Your task to perform on an android device: open a bookmark in the chrome app Image 0: 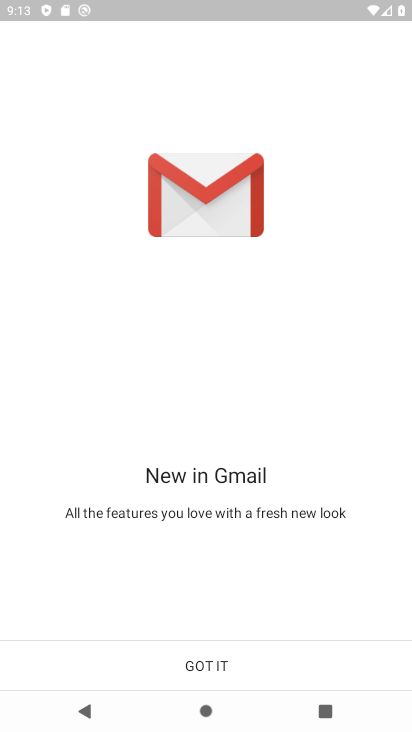
Step 0: press home button
Your task to perform on an android device: open a bookmark in the chrome app Image 1: 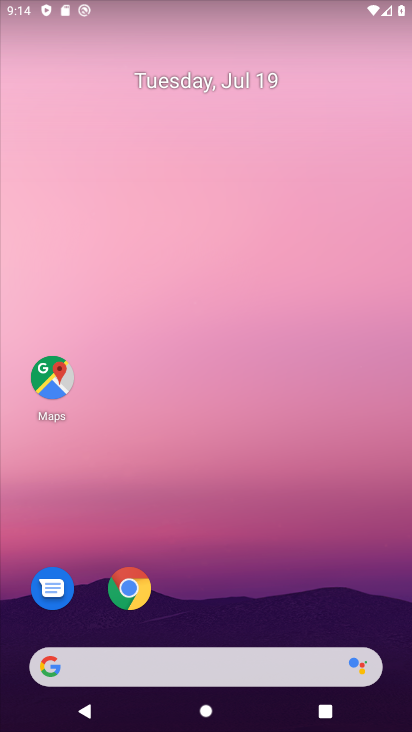
Step 1: click (125, 588)
Your task to perform on an android device: open a bookmark in the chrome app Image 2: 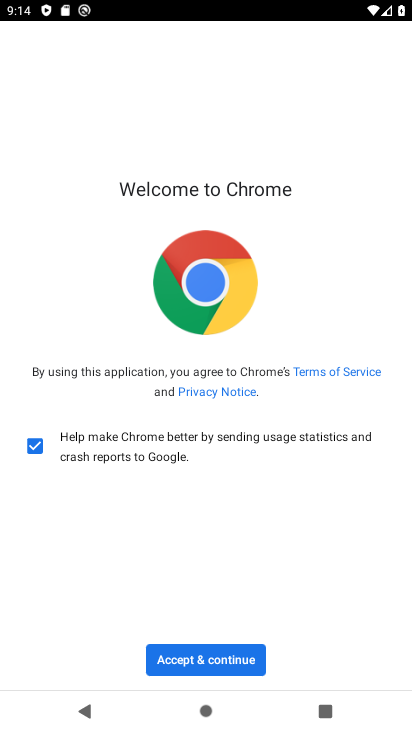
Step 2: click (201, 652)
Your task to perform on an android device: open a bookmark in the chrome app Image 3: 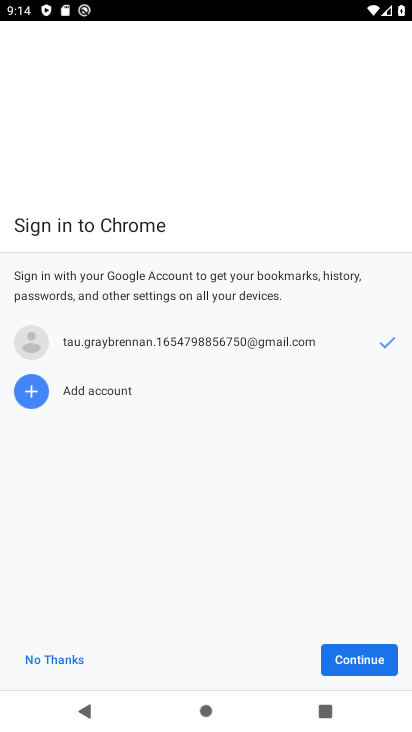
Step 3: click (368, 654)
Your task to perform on an android device: open a bookmark in the chrome app Image 4: 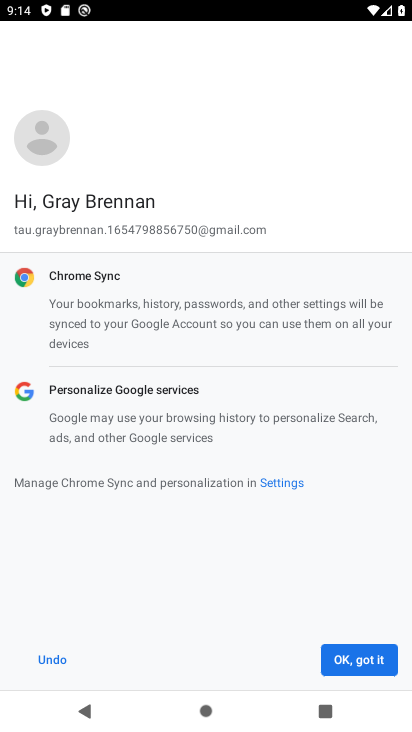
Step 4: click (362, 662)
Your task to perform on an android device: open a bookmark in the chrome app Image 5: 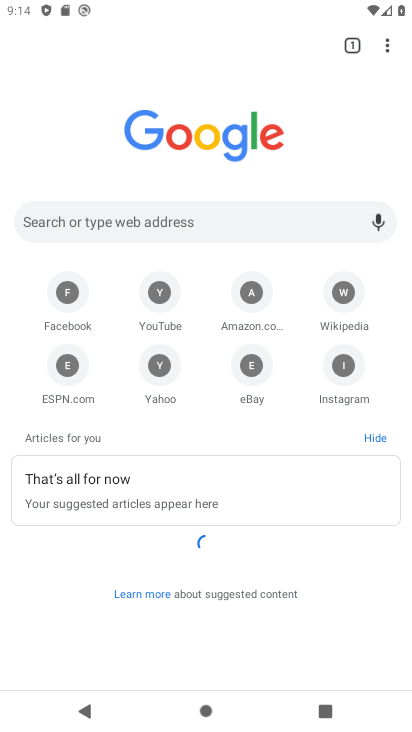
Step 5: click (383, 38)
Your task to perform on an android device: open a bookmark in the chrome app Image 6: 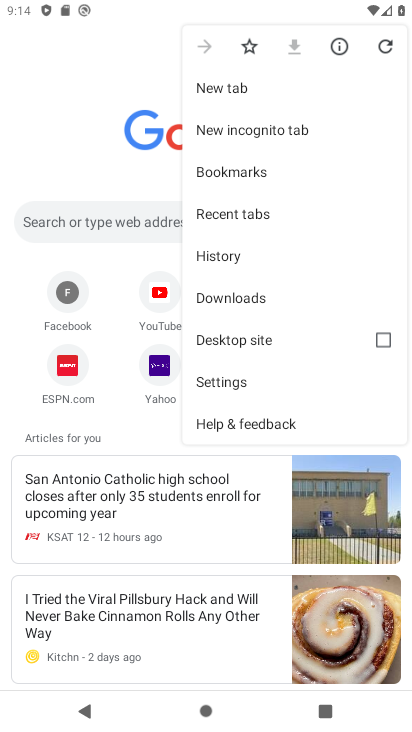
Step 6: click (271, 169)
Your task to perform on an android device: open a bookmark in the chrome app Image 7: 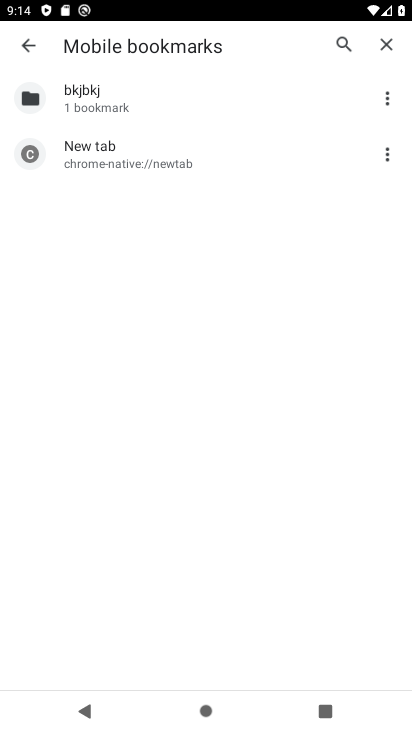
Step 7: task complete